Your task to perform on an android device: turn pop-ups off in chrome Image 0: 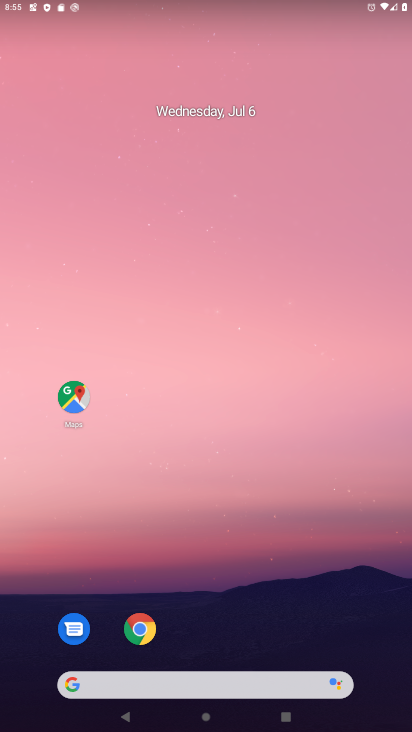
Step 0: click (148, 631)
Your task to perform on an android device: turn pop-ups off in chrome Image 1: 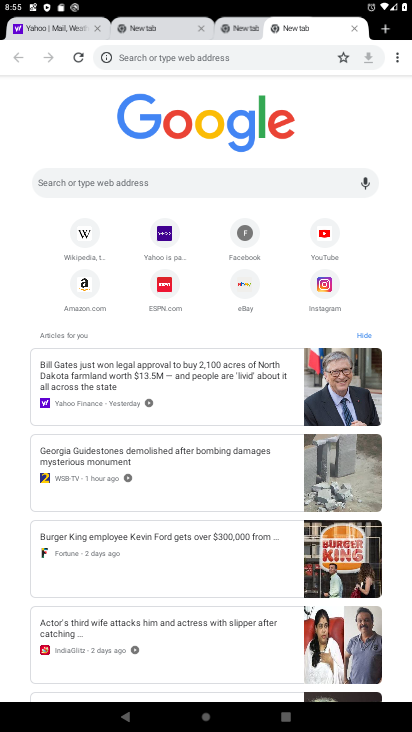
Step 1: click (393, 66)
Your task to perform on an android device: turn pop-ups off in chrome Image 2: 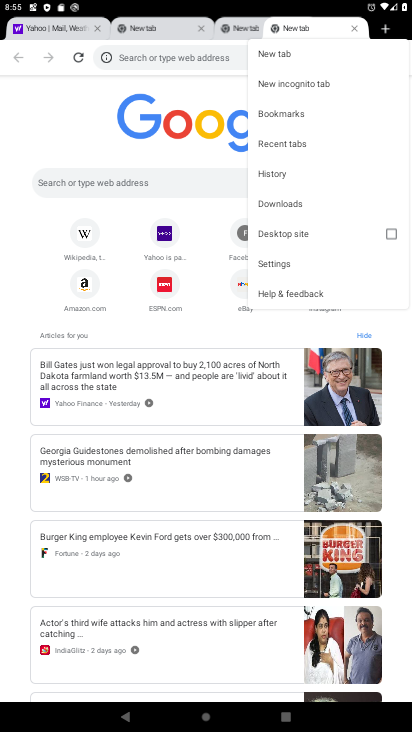
Step 2: click (283, 265)
Your task to perform on an android device: turn pop-ups off in chrome Image 3: 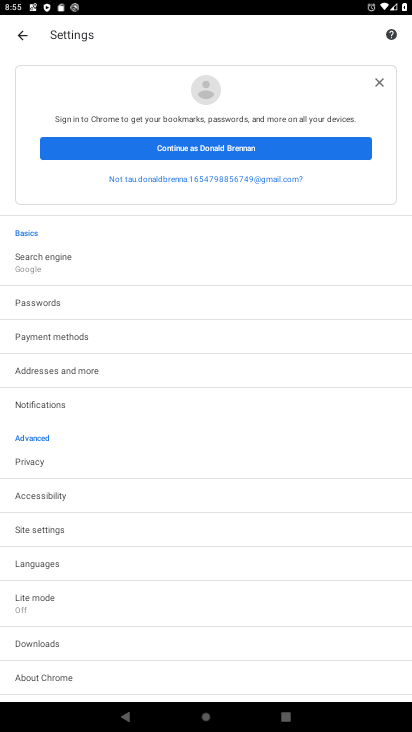
Step 3: click (69, 529)
Your task to perform on an android device: turn pop-ups off in chrome Image 4: 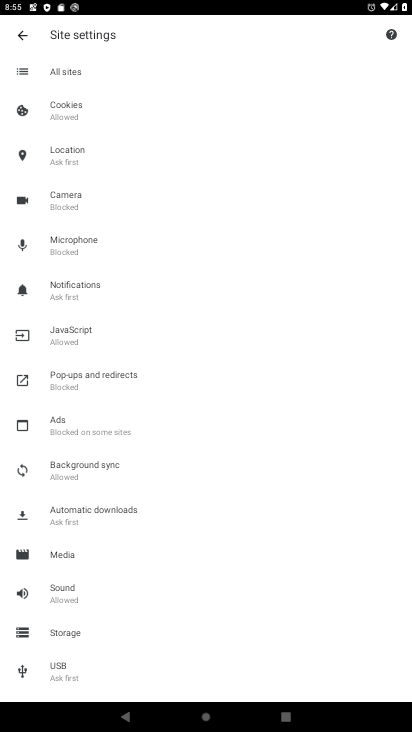
Step 4: drag from (208, 663) to (234, 479)
Your task to perform on an android device: turn pop-ups off in chrome Image 5: 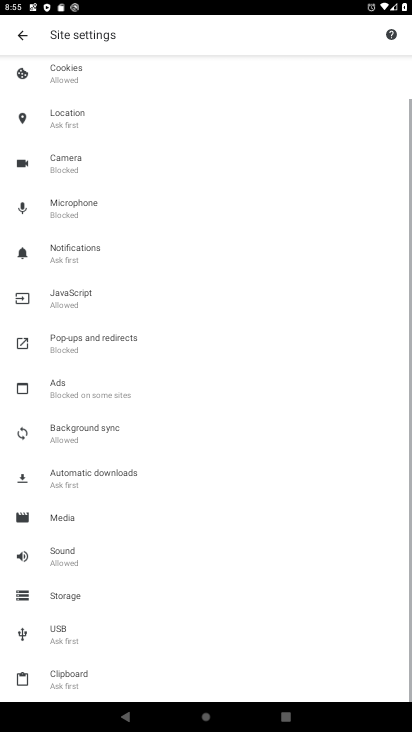
Step 5: click (111, 348)
Your task to perform on an android device: turn pop-ups off in chrome Image 6: 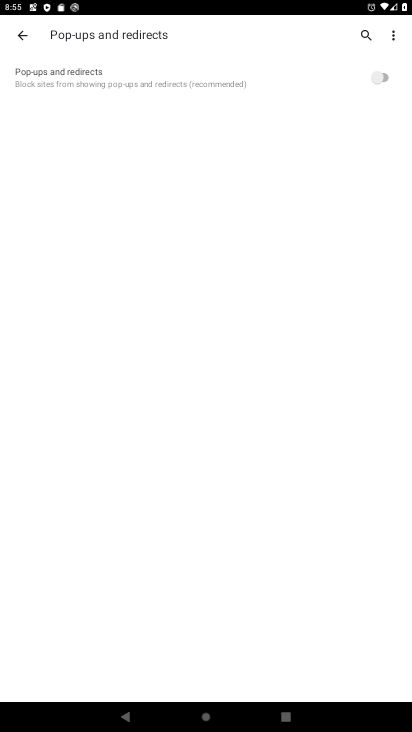
Step 6: task complete